Your task to perform on an android device: toggle location history Image 0: 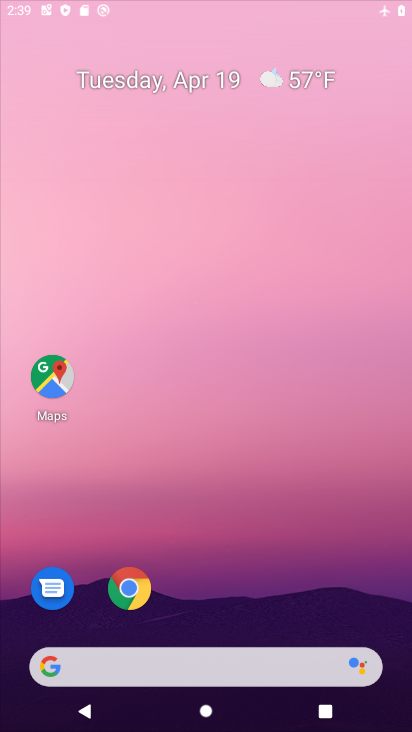
Step 0: click (262, 136)
Your task to perform on an android device: toggle location history Image 1: 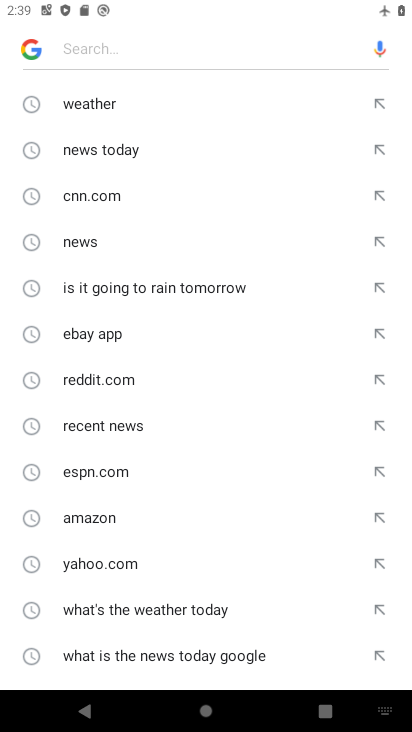
Step 1: press back button
Your task to perform on an android device: toggle location history Image 2: 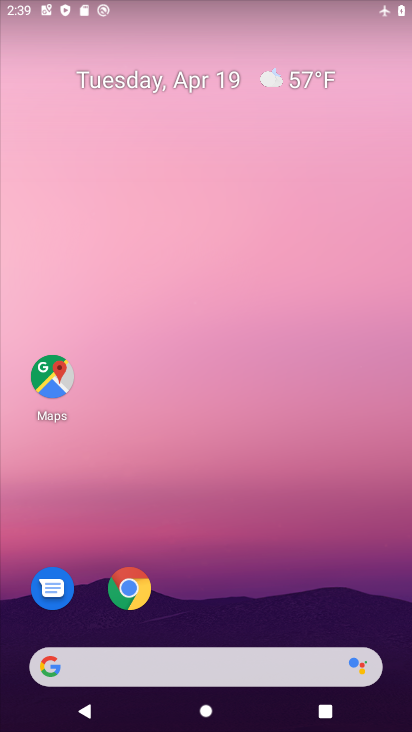
Step 2: click (128, 591)
Your task to perform on an android device: toggle location history Image 3: 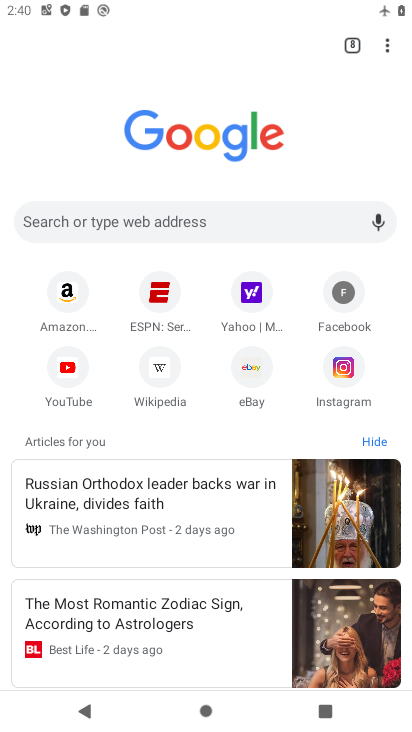
Step 3: click (76, 285)
Your task to perform on an android device: toggle location history Image 4: 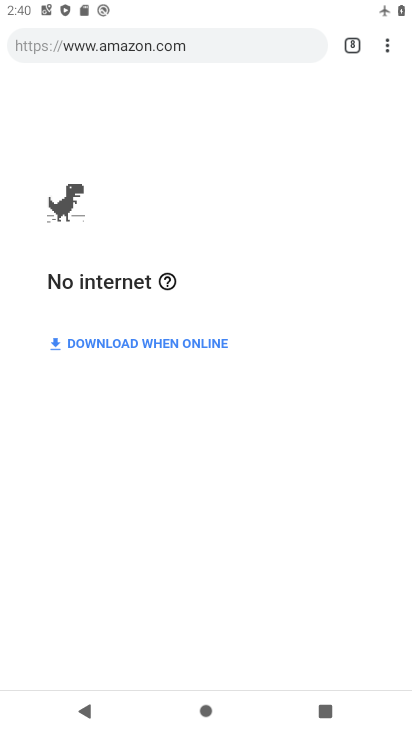
Step 4: task complete